Your task to perform on an android device: Clear the shopping cart on amazon.com. Search for "apple airpods" on amazon.com, select the first entry, and add it to the cart. Image 0: 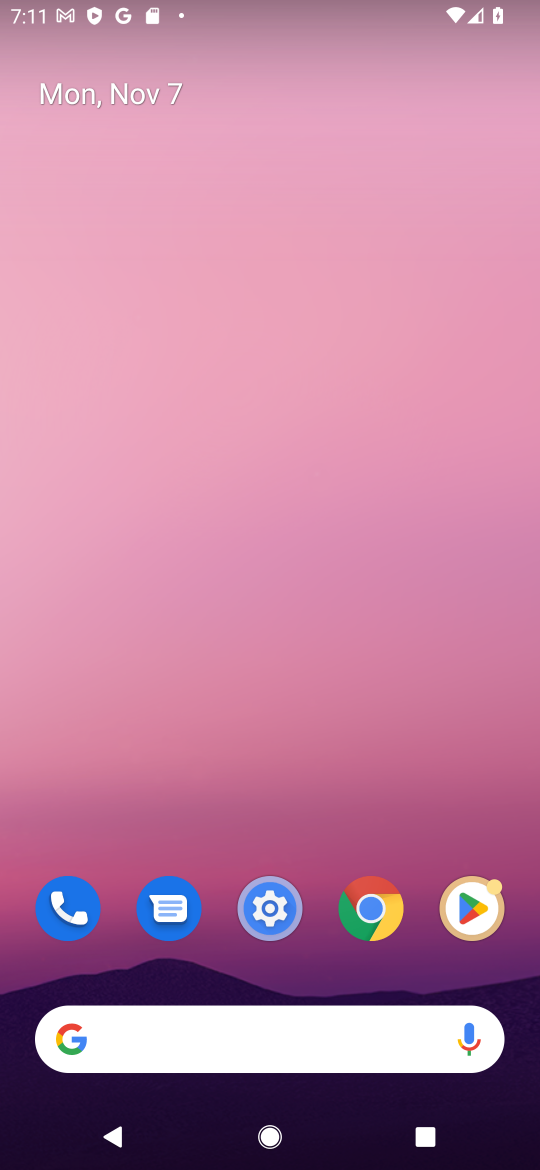
Step 0: click (364, 1024)
Your task to perform on an android device: Clear the shopping cart on amazon.com. Search for "apple airpods" on amazon.com, select the first entry, and add it to the cart. Image 1: 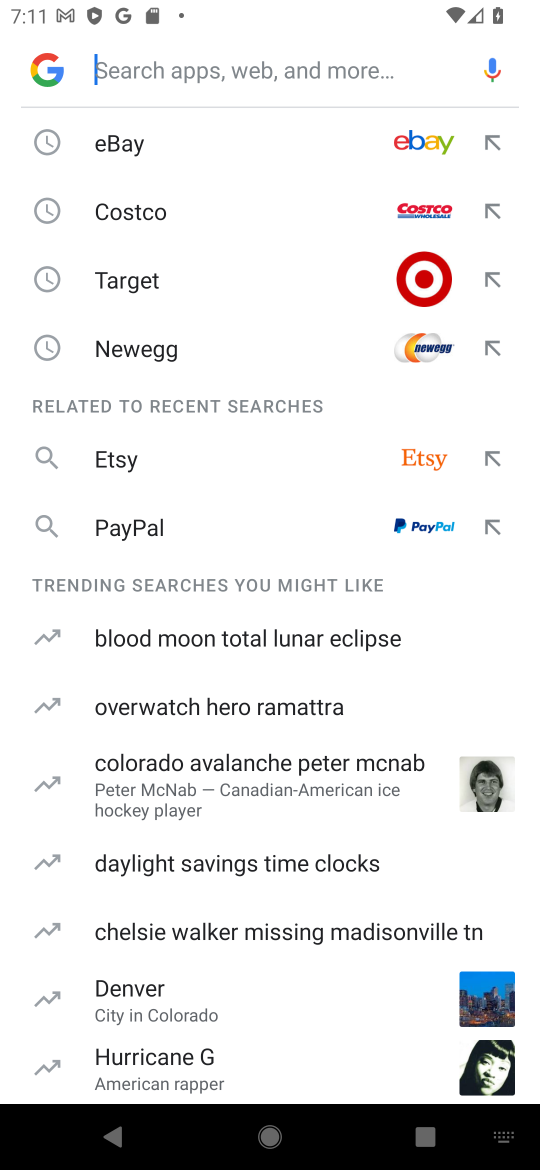
Step 1: type "amazon"
Your task to perform on an android device: Clear the shopping cart on amazon.com. Search for "apple airpods" on amazon.com, select the first entry, and add it to the cart. Image 2: 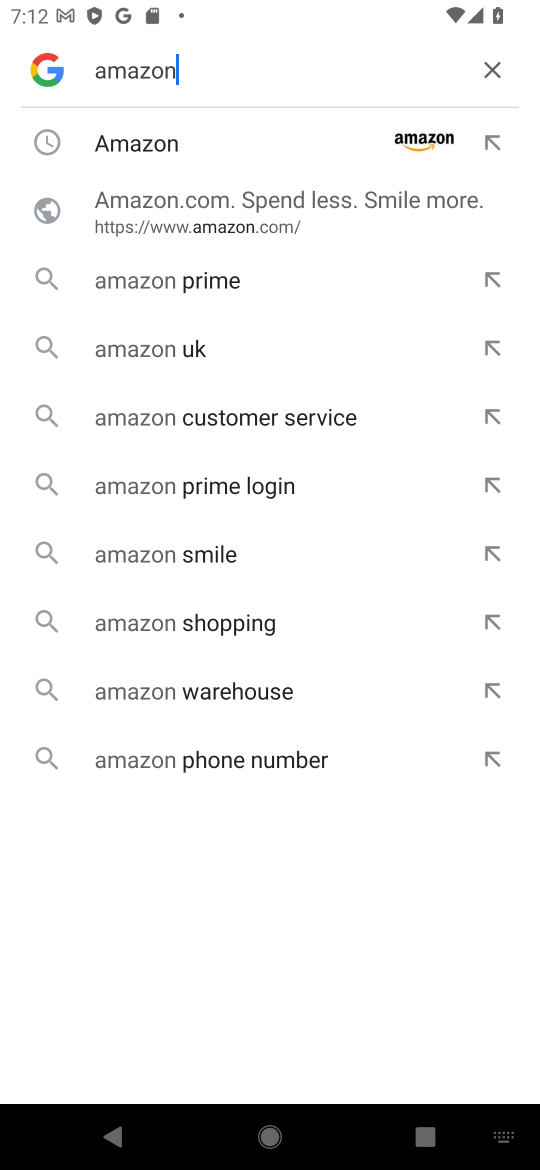
Step 2: click (157, 139)
Your task to perform on an android device: Clear the shopping cart on amazon.com. Search for "apple airpods" on amazon.com, select the first entry, and add it to the cart. Image 3: 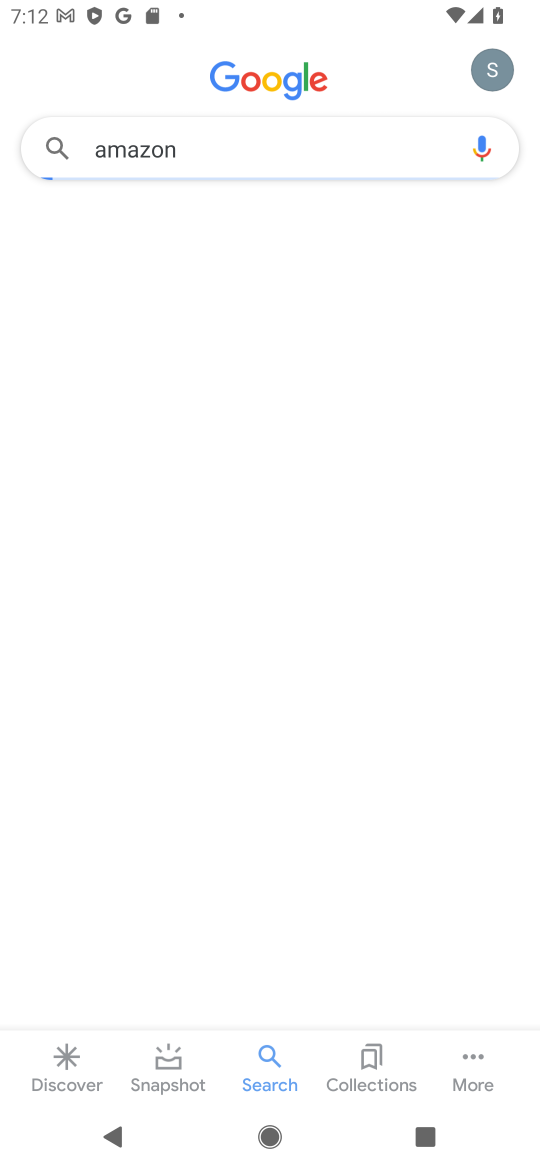
Step 3: task complete